Your task to perform on an android device: Go to sound settings Image 0: 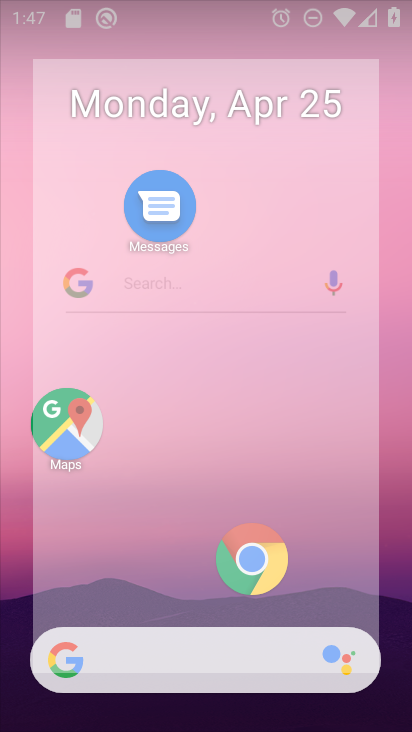
Step 0: click (255, 559)
Your task to perform on an android device: Go to sound settings Image 1: 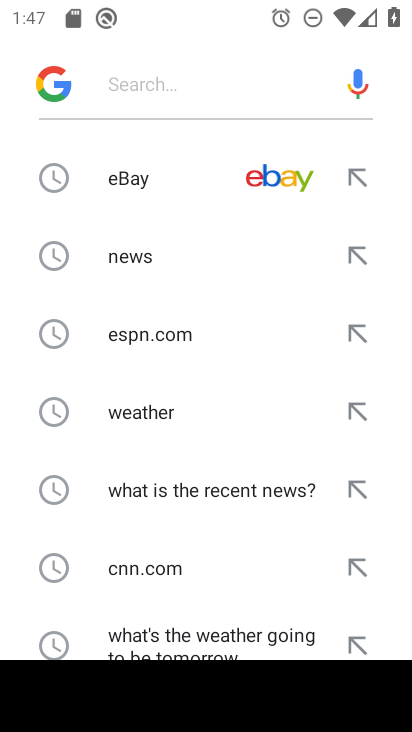
Step 1: press back button
Your task to perform on an android device: Go to sound settings Image 2: 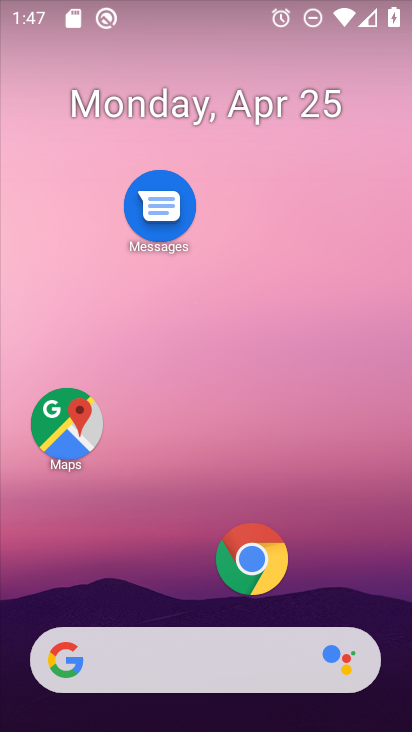
Step 2: drag from (184, 579) to (253, 99)
Your task to perform on an android device: Go to sound settings Image 3: 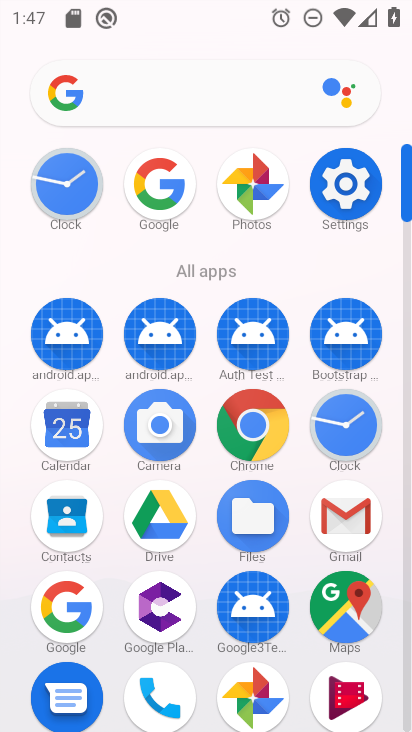
Step 3: click (345, 177)
Your task to perform on an android device: Go to sound settings Image 4: 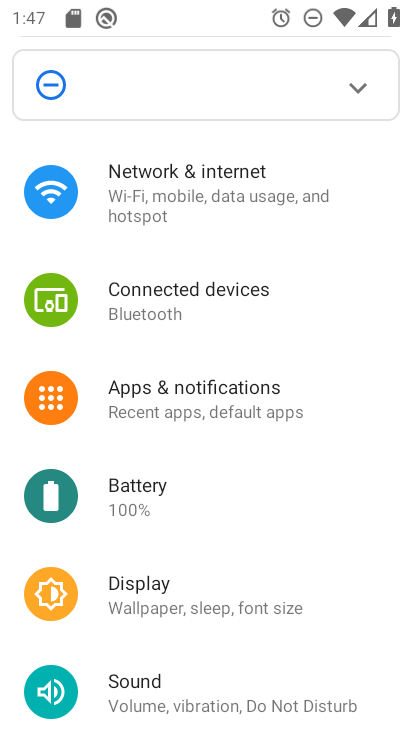
Step 4: drag from (248, 549) to (262, 236)
Your task to perform on an android device: Go to sound settings Image 5: 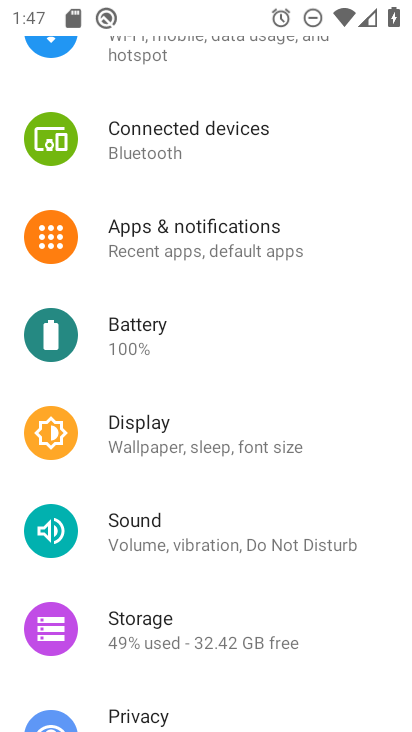
Step 5: click (169, 521)
Your task to perform on an android device: Go to sound settings Image 6: 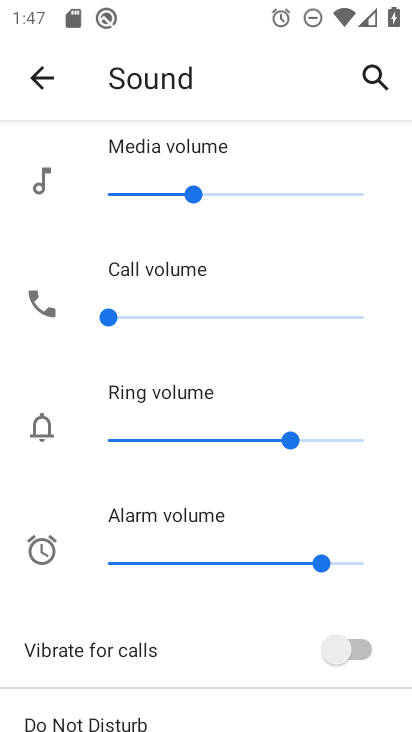
Step 6: task complete